Your task to perform on an android device: Check the weather Image 0: 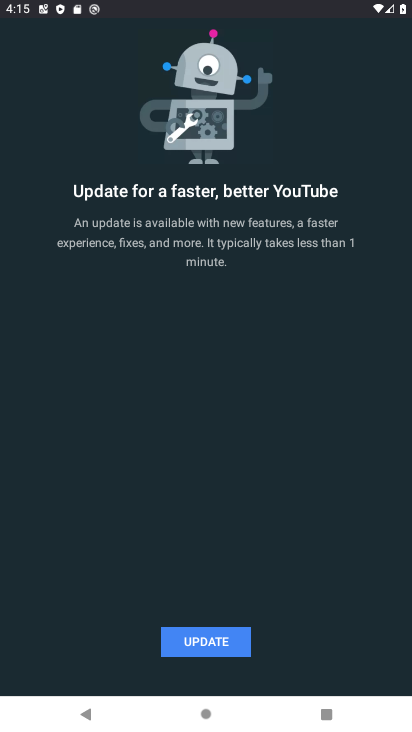
Step 0: press home button
Your task to perform on an android device: Check the weather Image 1: 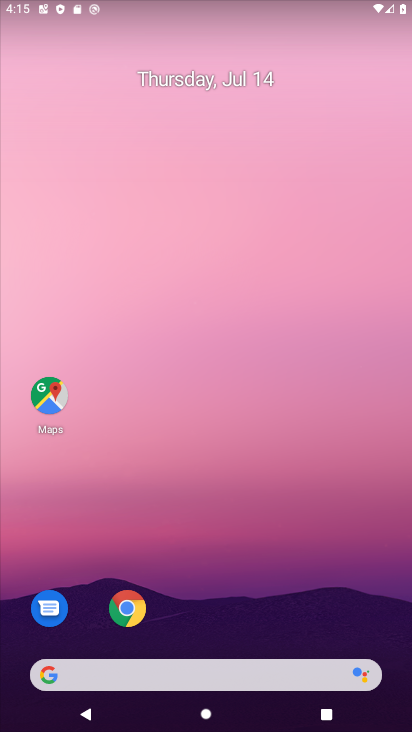
Step 1: click (195, 666)
Your task to perform on an android device: Check the weather Image 2: 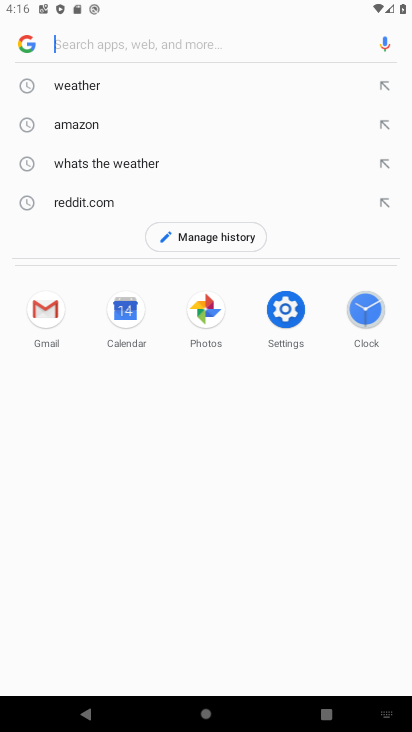
Step 2: click (103, 81)
Your task to perform on an android device: Check the weather Image 3: 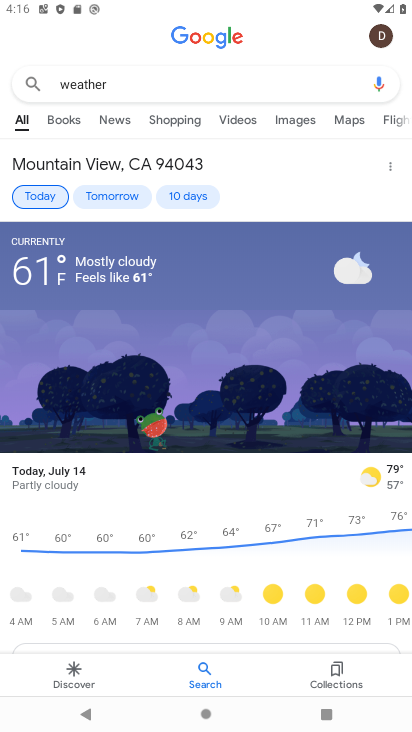
Step 3: task complete